Your task to perform on an android device: open wifi settings Image 0: 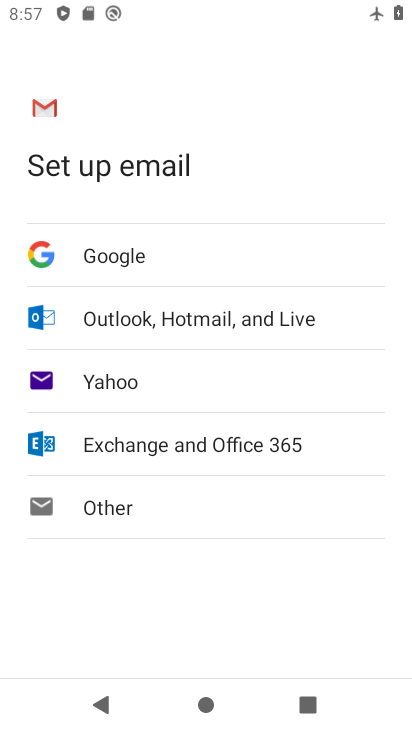
Step 0: press home button
Your task to perform on an android device: open wifi settings Image 1: 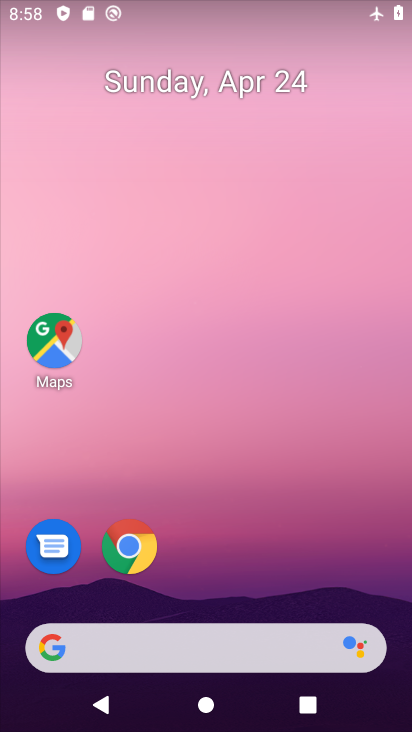
Step 1: drag from (394, 606) to (294, 66)
Your task to perform on an android device: open wifi settings Image 2: 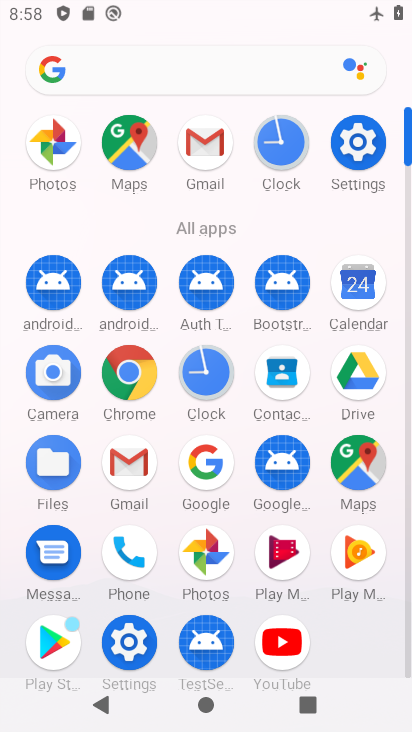
Step 2: click (354, 135)
Your task to perform on an android device: open wifi settings Image 3: 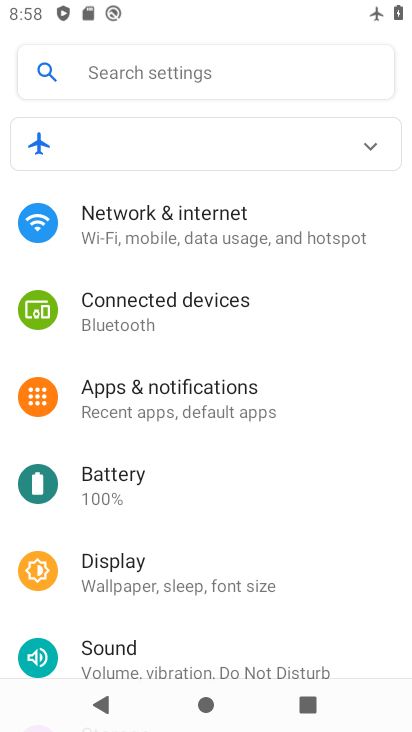
Step 3: click (280, 239)
Your task to perform on an android device: open wifi settings Image 4: 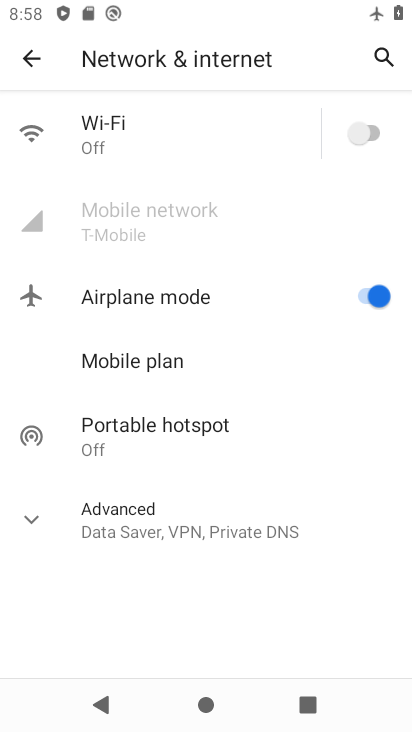
Step 4: click (188, 122)
Your task to perform on an android device: open wifi settings Image 5: 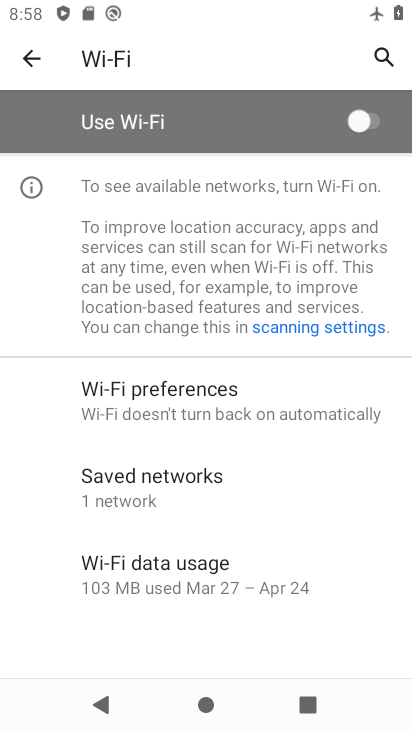
Step 5: task complete